Your task to perform on an android device: install app "Google Keep" Image 0: 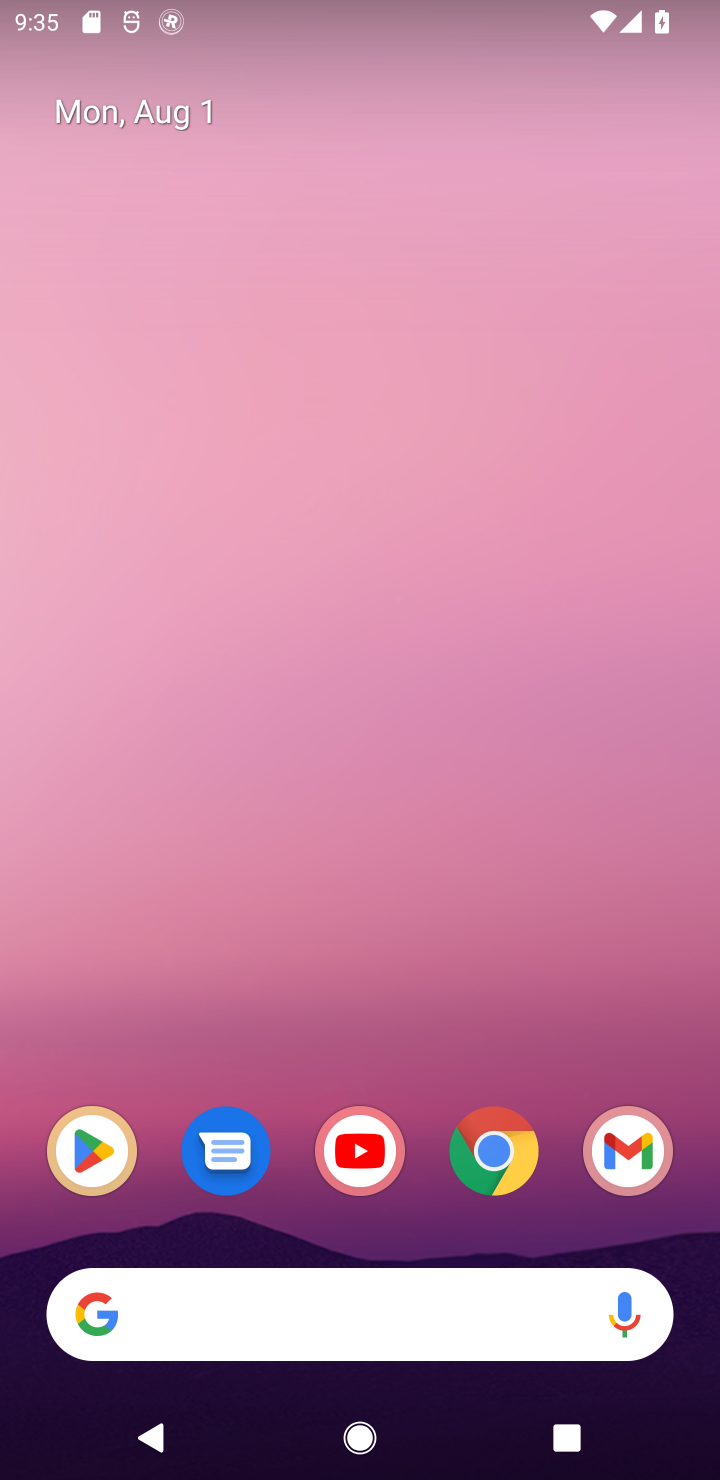
Step 0: click (100, 1155)
Your task to perform on an android device: install app "Google Keep" Image 1: 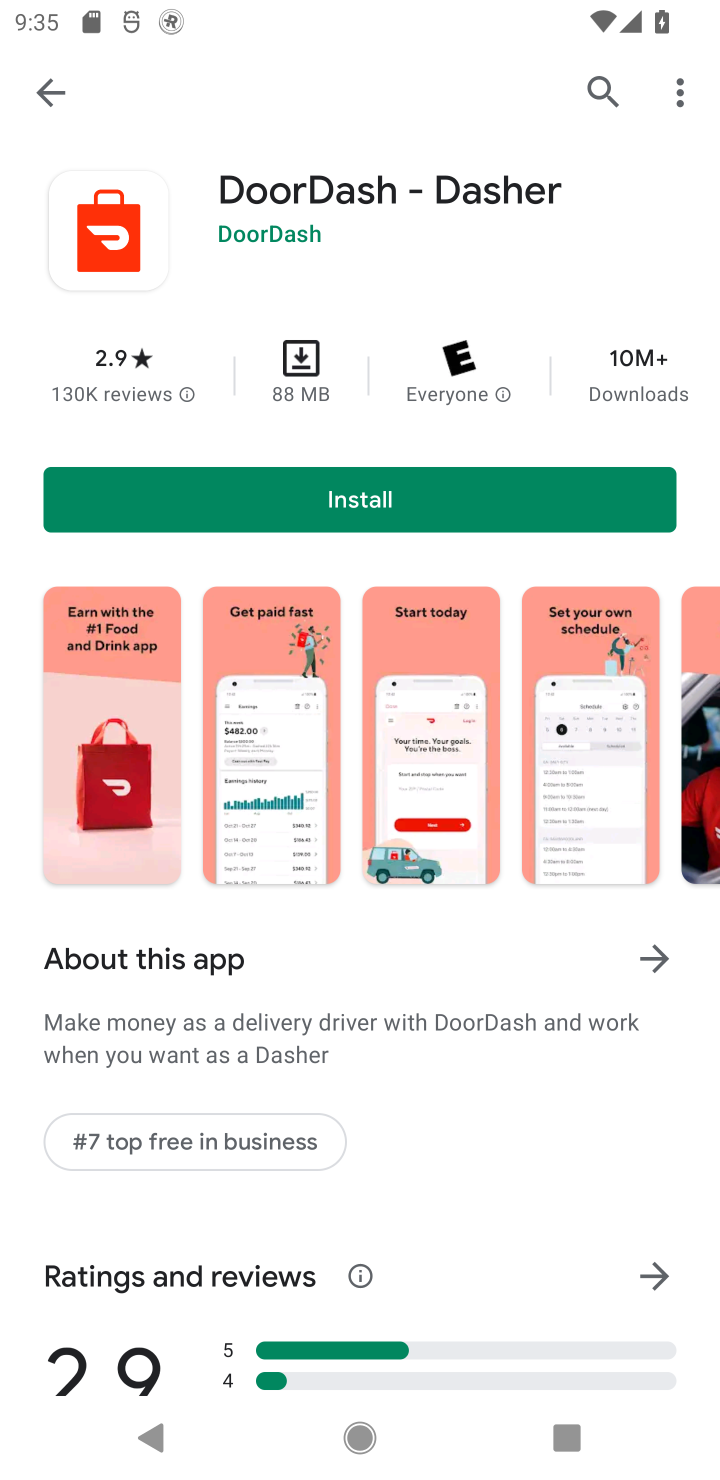
Step 1: click (605, 96)
Your task to perform on an android device: install app "Google Keep" Image 2: 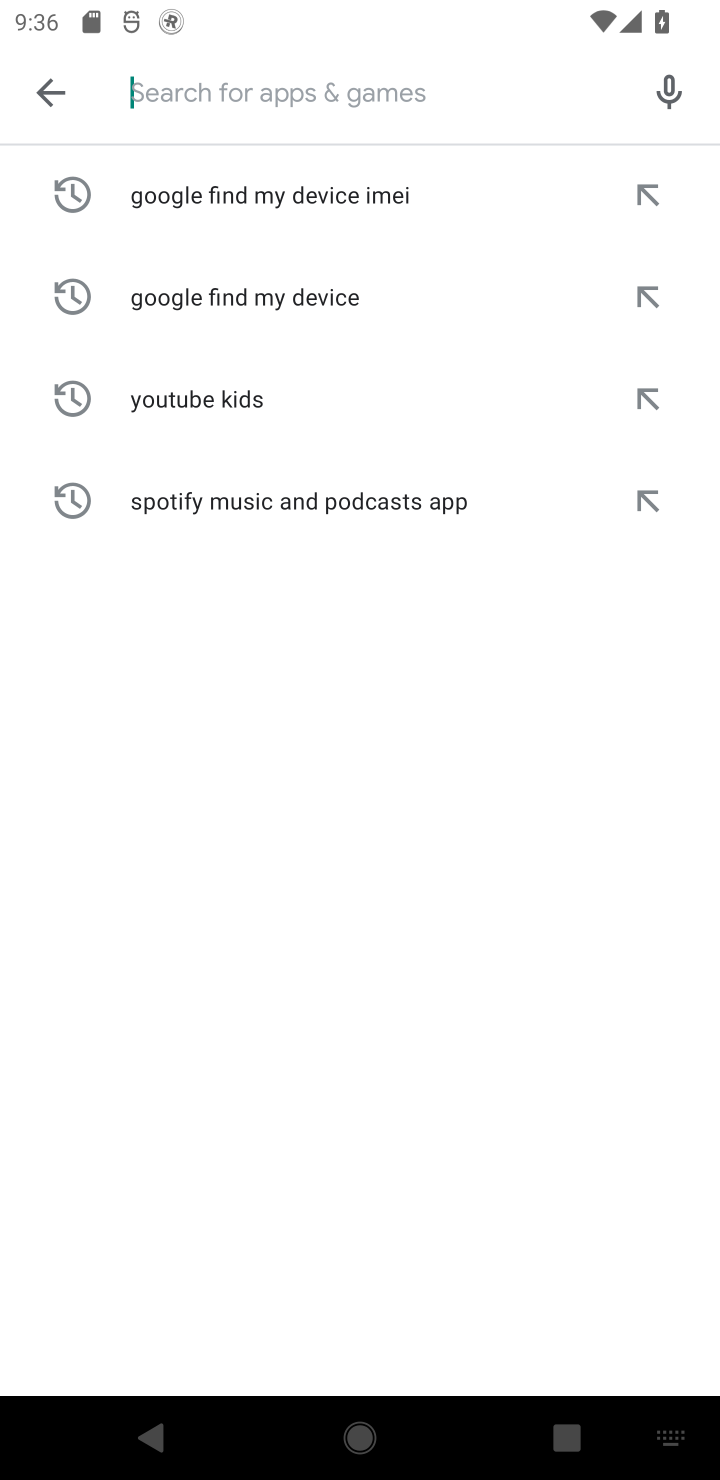
Step 2: type "Google Keep"
Your task to perform on an android device: install app "Google Keep" Image 3: 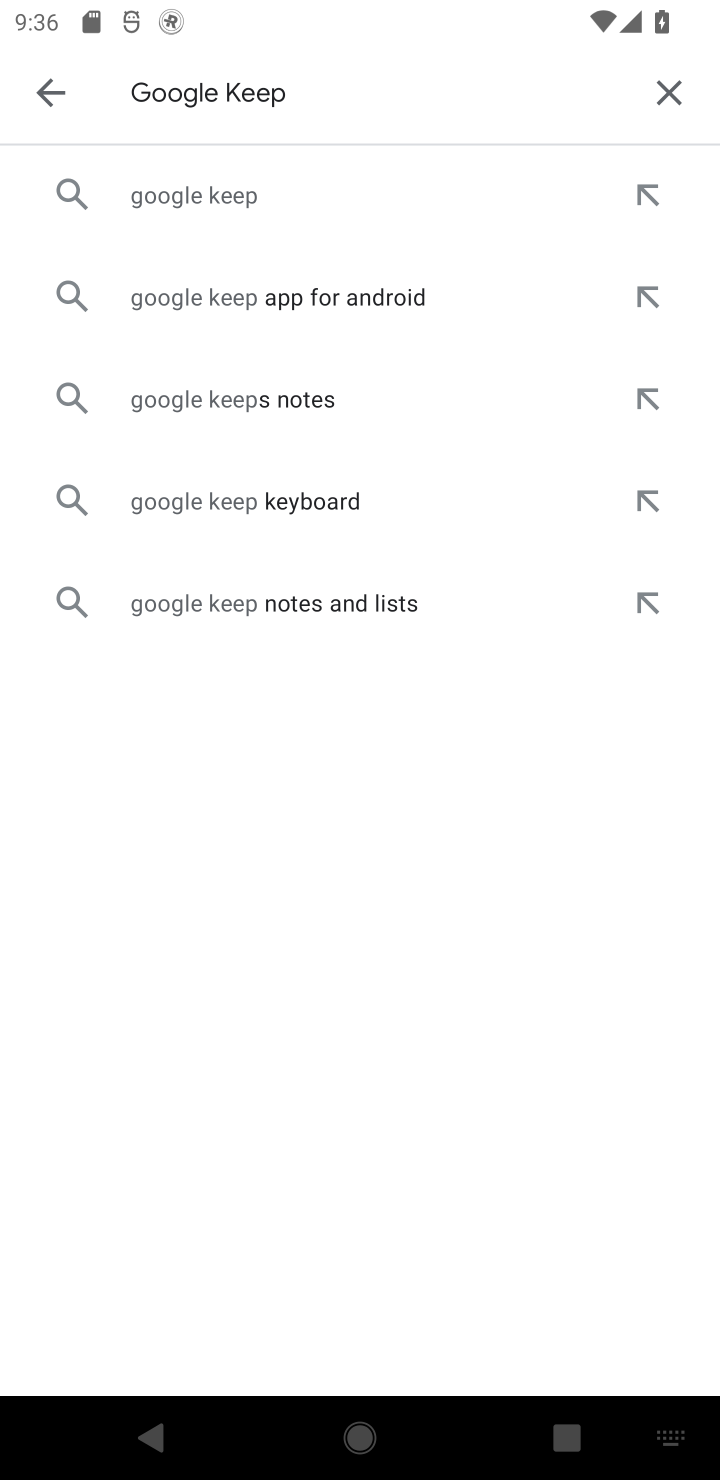
Step 3: click (255, 197)
Your task to perform on an android device: install app "Google Keep" Image 4: 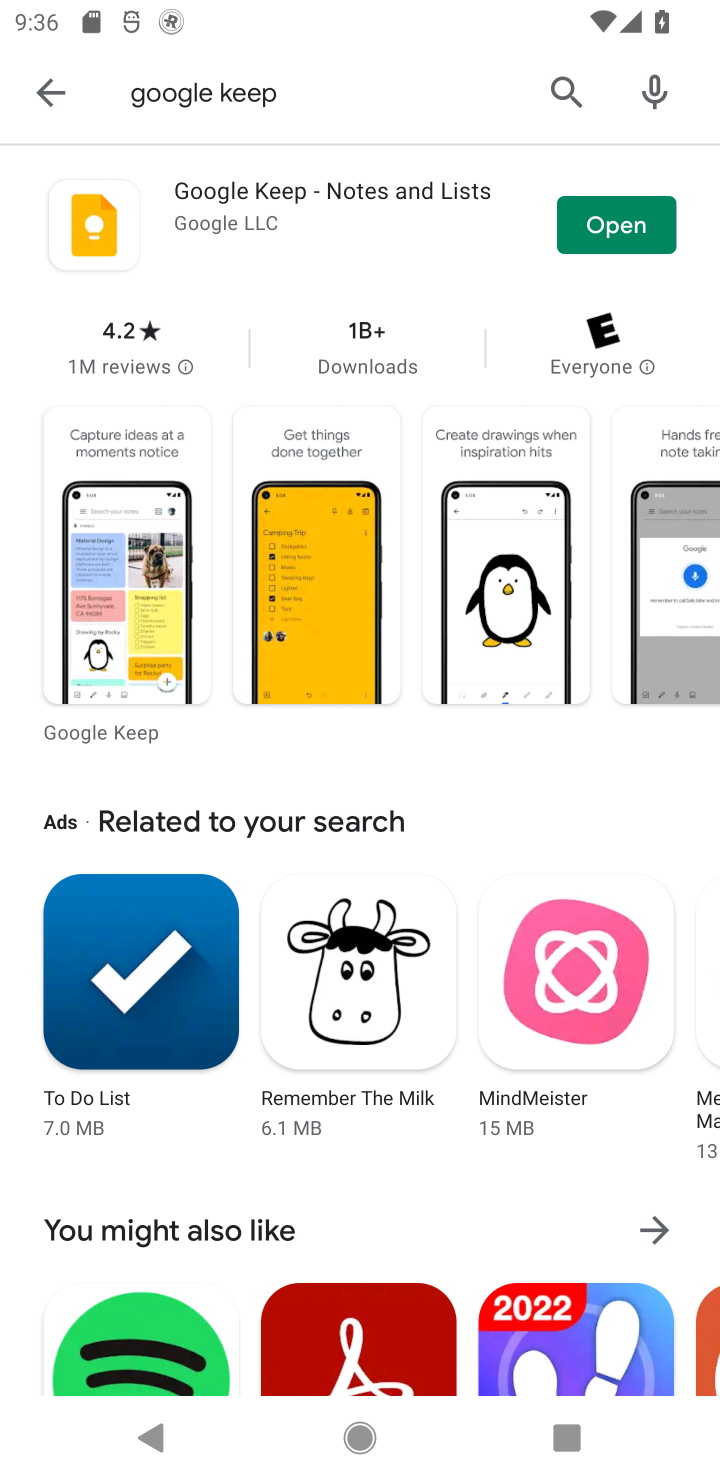
Step 4: task complete